Your task to perform on an android device: Open Android settings Image 0: 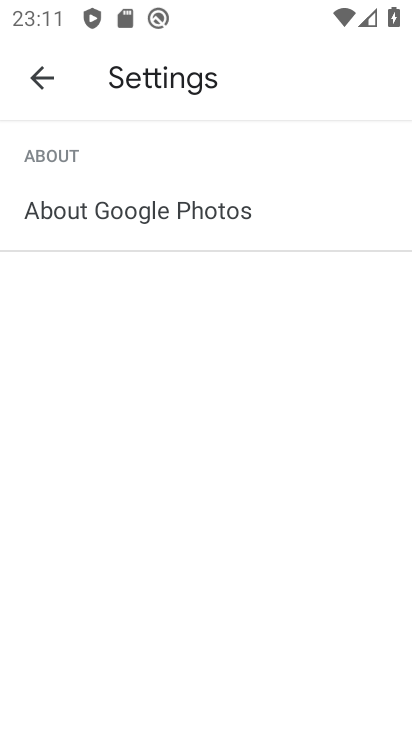
Step 0: press home button
Your task to perform on an android device: Open Android settings Image 1: 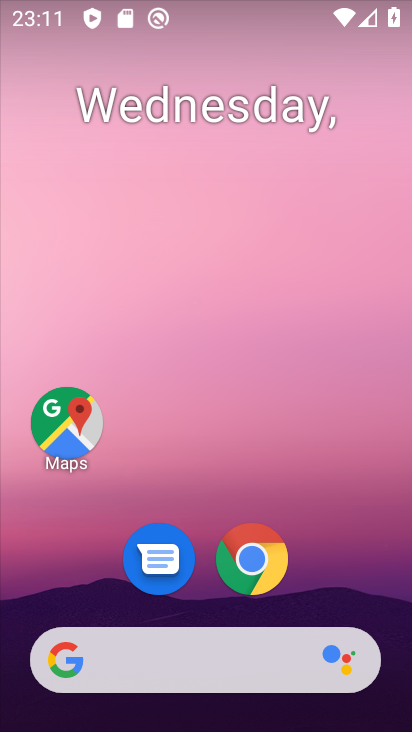
Step 1: drag from (190, 585) to (247, 196)
Your task to perform on an android device: Open Android settings Image 2: 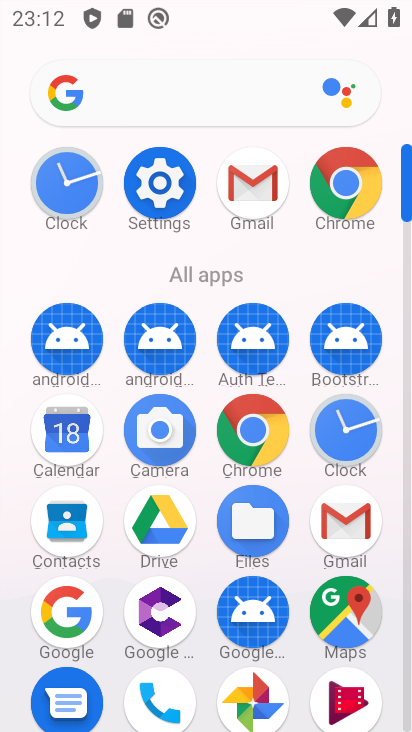
Step 2: click (160, 183)
Your task to perform on an android device: Open Android settings Image 3: 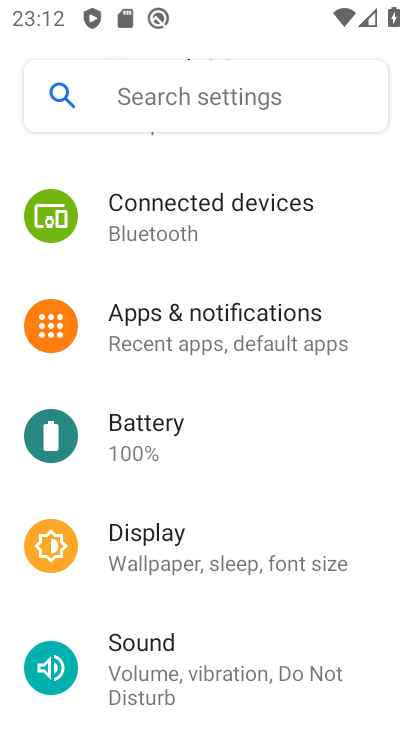
Step 3: drag from (238, 260) to (261, 461)
Your task to perform on an android device: Open Android settings Image 4: 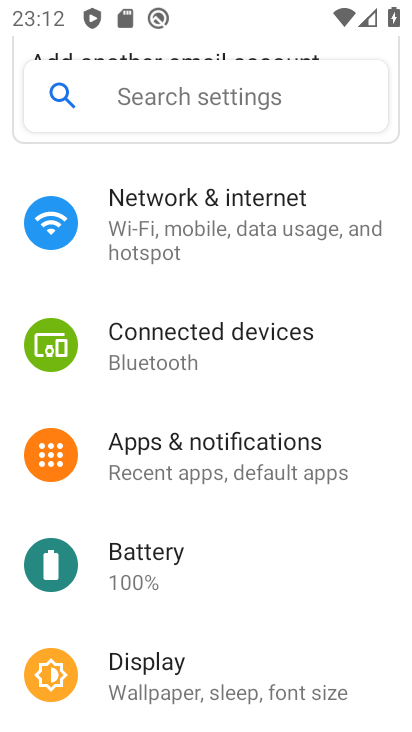
Step 4: drag from (230, 608) to (306, 259)
Your task to perform on an android device: Open Android settings Image 5: 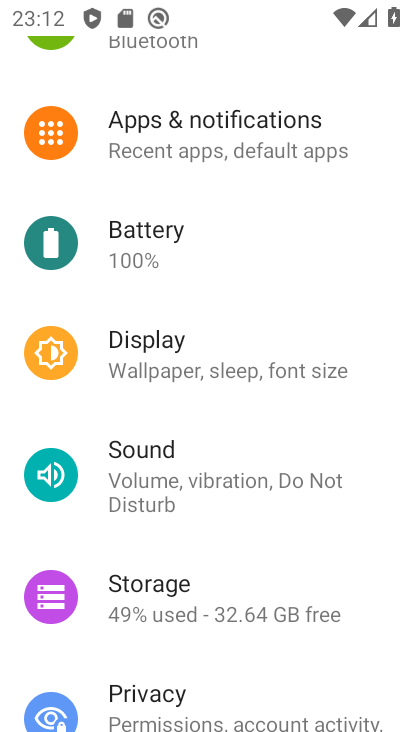
Step 5: drag from (204, 681) to (254, 292)
Your task to perform on an android device: Open Android settings Image 6: 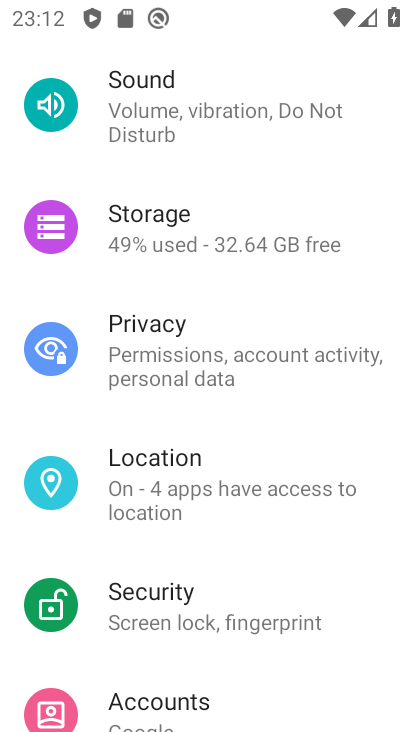
Step 6: drag from (209, 676) to (308, 280)
Your task to perform on an android device: Open Android settings Image 7: 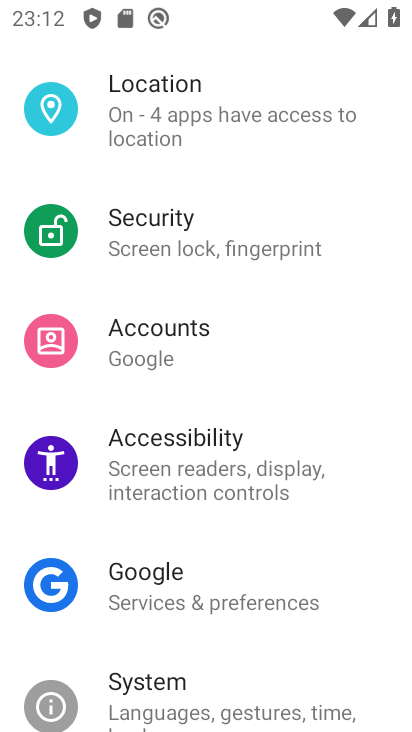
Step 7: drag from (201, 667) to (254, 259)
Your task to perform on an android device: Open Android settings Image 8: 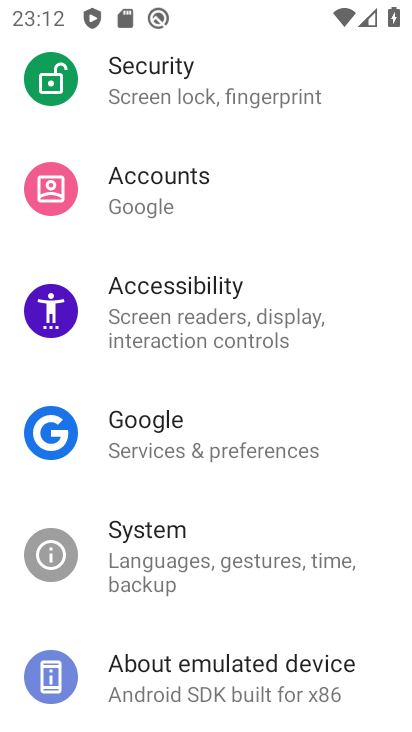
Step 8: click (207, 676)
Your task to perform on an android device: Open Android settings Image 9: 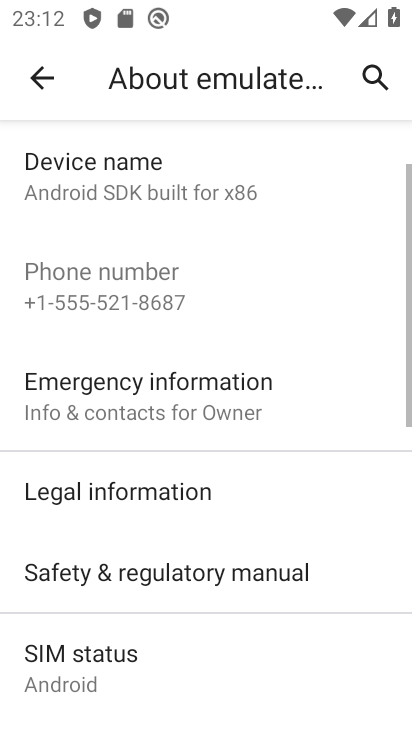
Step 9: task complete